Your task to perform on an android device: Go to privacy settings Image 0: 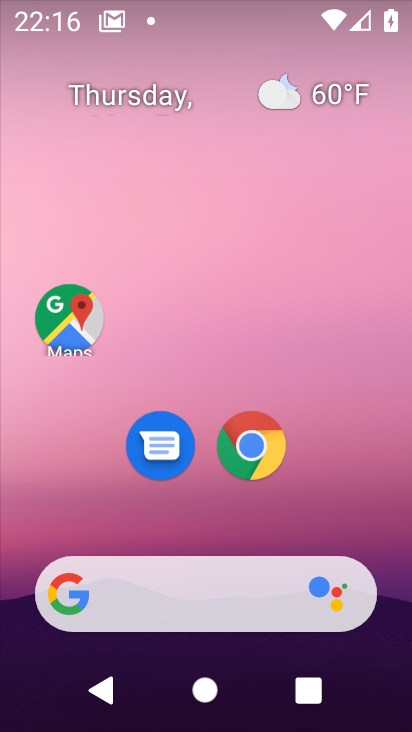
Step 0: drag from (236, 585) to (216, 126)
Your task to perform on an android device: Go to privacy settings Image 1: 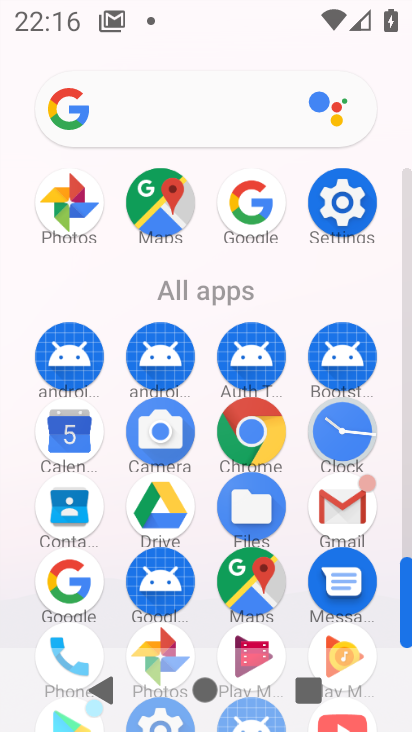
Step 1: click (356, 197)
Your task to perform on an android device: Go to privacy settings Image 2: 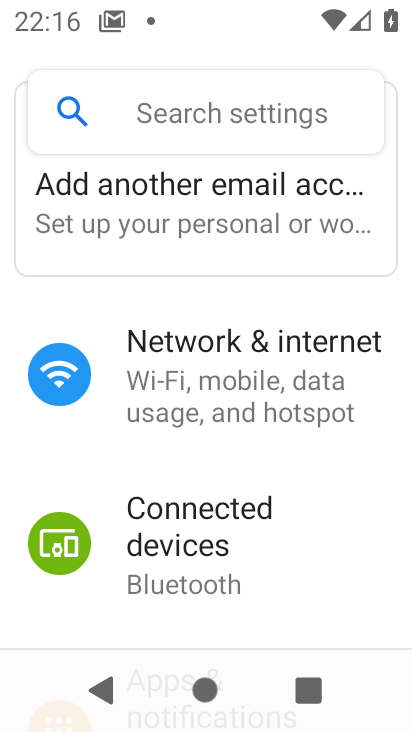
Step 2: drag from (223, 462) to (288, 57)
Your task to perform on an android device: Go to privacy settings Image 3: 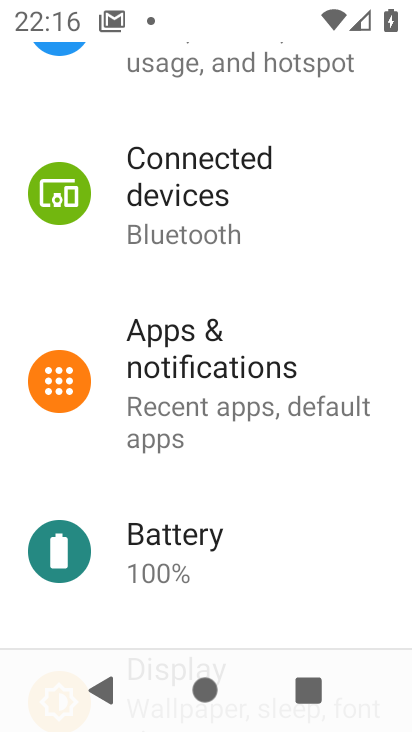
Step 3: drag from (279, 493) to (238, 49)
Your task to perform on an android device: Go to privacy settings Image 4: 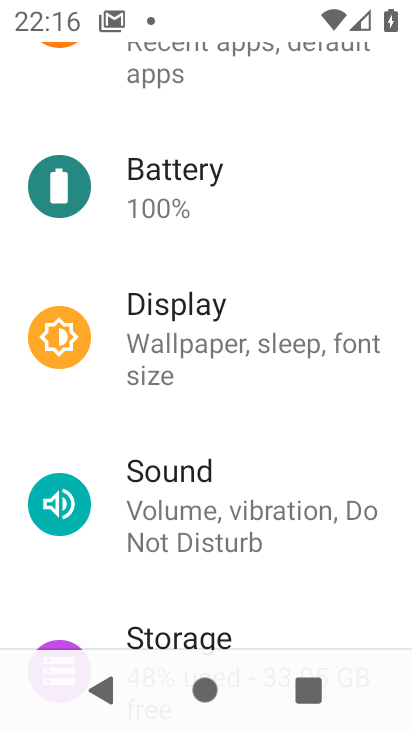
Step 4: drag from (271, 513) to (252, 92)
Your task to perform on an android device: Go to privacy settings Image 5: 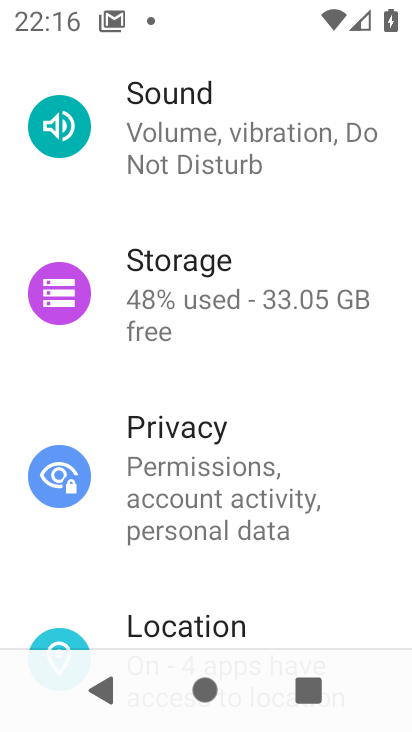
Step 5: click (215, 491)
Your task to perform on an android device: Go to privacy settings Image 6: 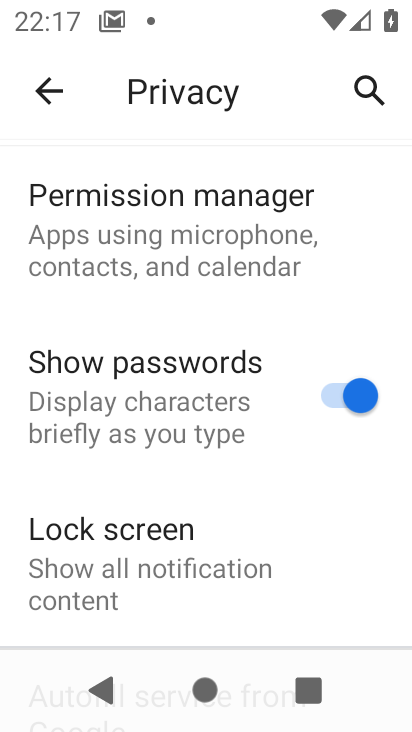
Step 6: task complete